Your task to perform on an android device: Show me productivity apps on the Play Store Image 0: 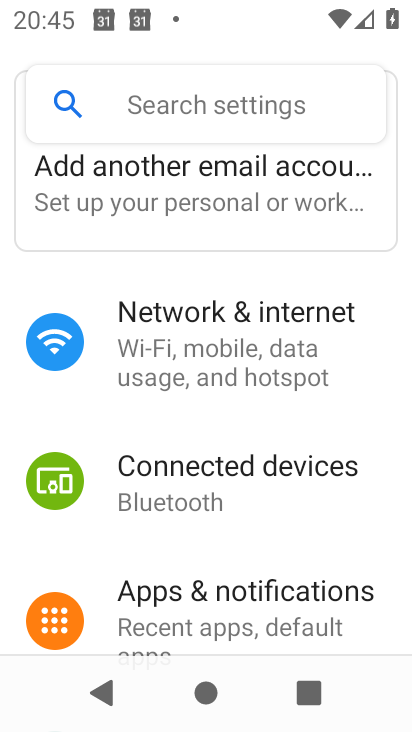
Step 0: press home button
Your task to perform on an android device: Show me productivity apps on the Play Store Image 1: 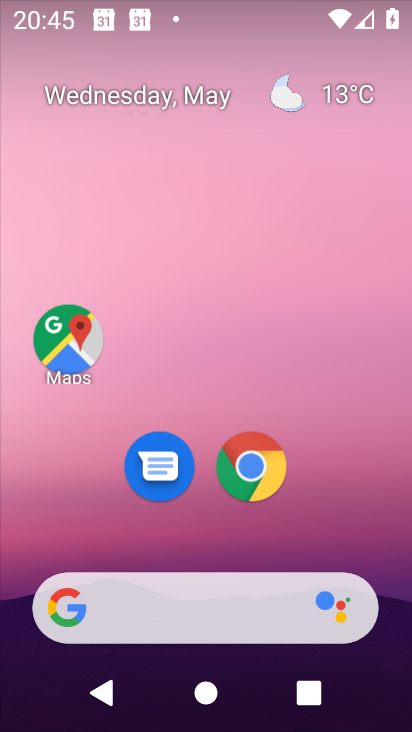
Step 1: drag from (210, 550) to (237, 92)
Your task to perform on an android device: Show me productivity apps on the Play Store Image 2: 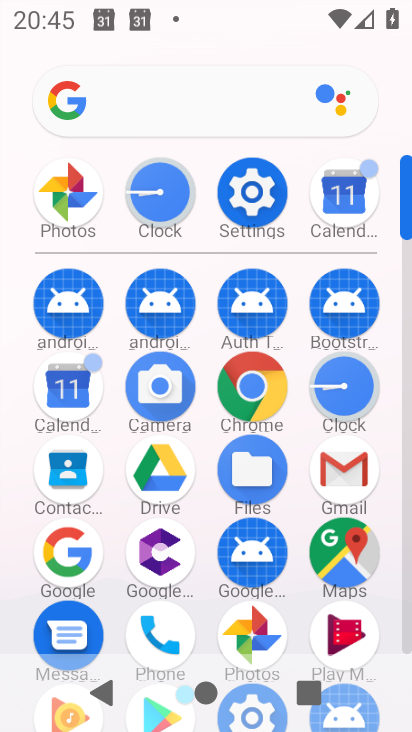
Step 2: drag from (204, 582) to (224, 166)
Your task to perform on an android device: Show me productivity apps on the Play Store Image 3: 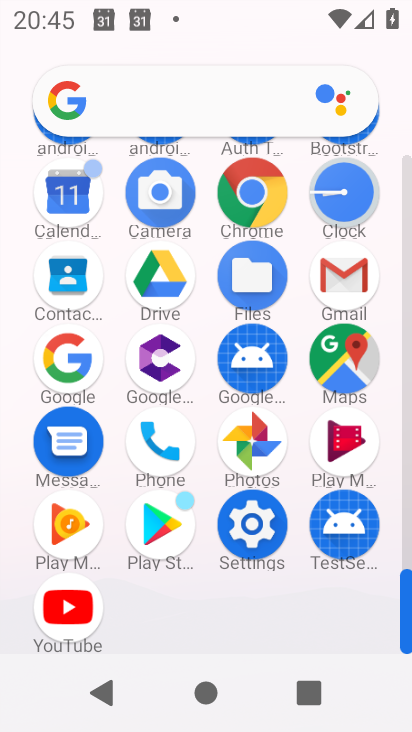
Step 3: click (156, 520)
Your task to perform on an android device: Show me productivity apps on the Play Store Image 4: 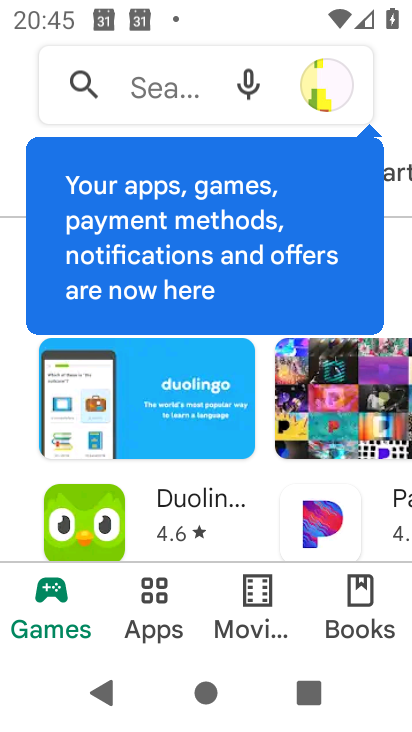
Step 4: click (156, 600)
Your task to perform on an android device: Show me productivity apps on the Play Store Image 5: 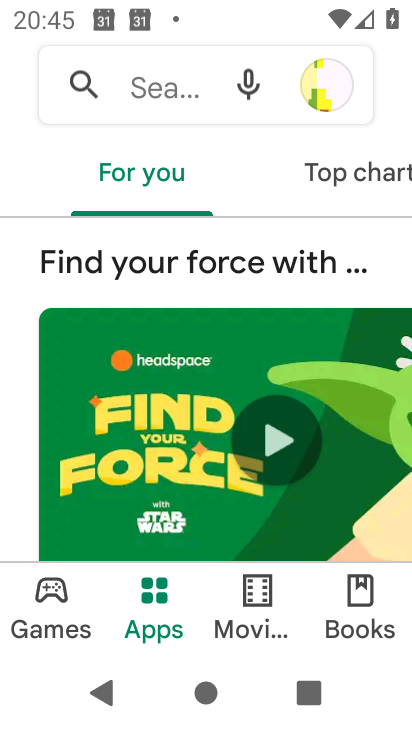
Step 5: drag from (382, 179) to (8, 189)
Your task to perform on an android device: Show me productivity apps on the Play Store Image 6: 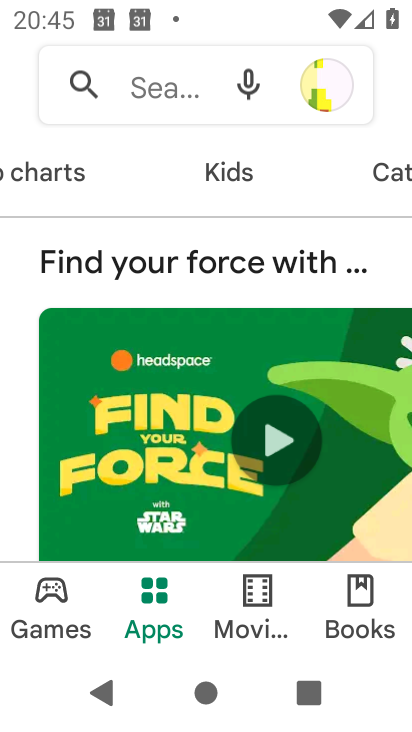
Step 6: click (388, 176)
Your task to perform on an android device: Show me productivity apps on the Play Store Image 7: 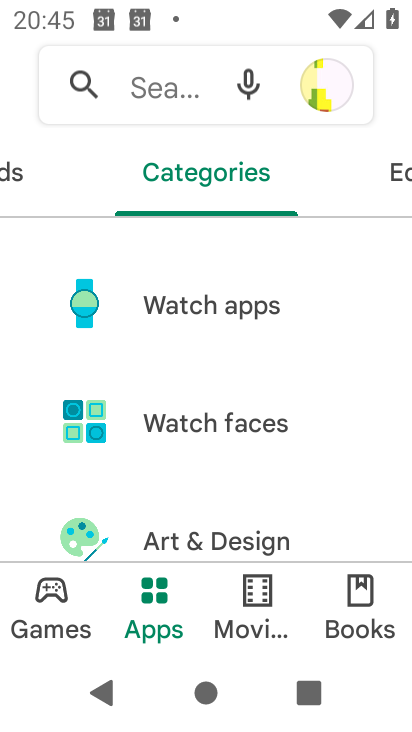
Step 7: drag from (249, 497) to (223, 117)
Your task to perform on an android device: Show me productivity apps on the Play Store Image 8: 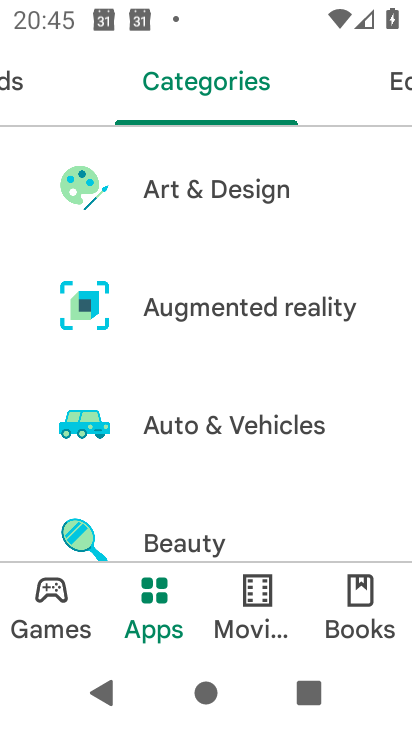
Step 8: drag from (202, 512) to (208, 29)
Your task to perform on an android device: Show me productivity apps on the Play Store Image 9: 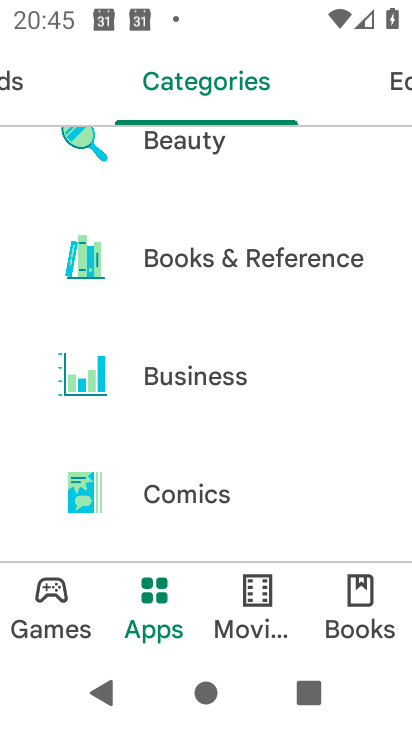
Step 9: drag from (180, 522) to (178, 75)
Your task to perform on an android device: Show me productivity apps on the Play Store Image 10: 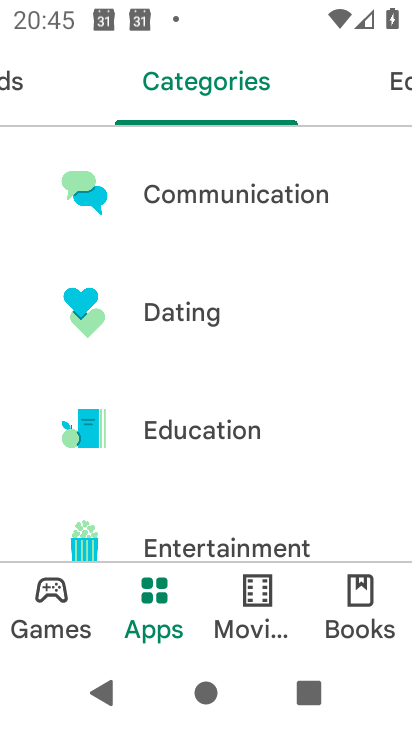
Step 10: drag from (196, 511) to (194, 118)
Your task to perform on an android device: Show me productivity apps on the Play Store Image 11: 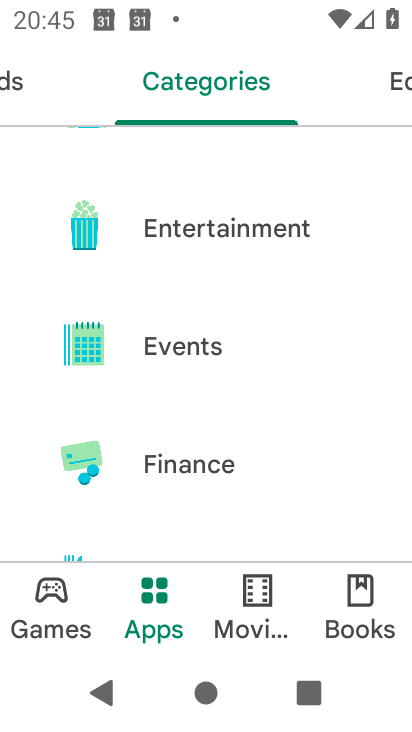
Step 11: drag from (164, 515) to (158, 120)
Your task to perform on an android device: Show me productivity apps on the Play Store Image 12: 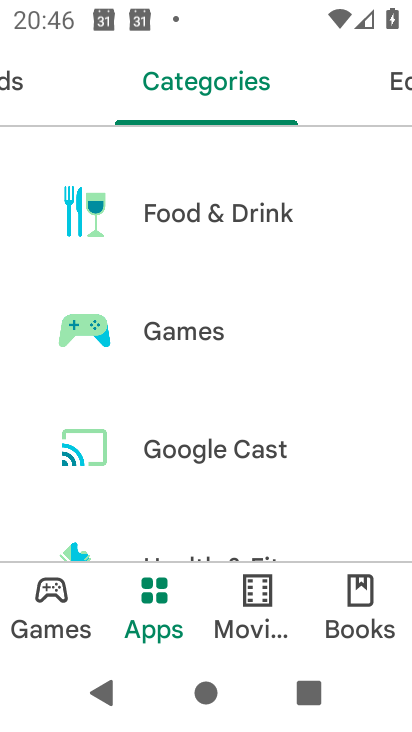
Step 12: drag from (168, 493) to (175, 29)
Your task to perform on an android device: Show me productivity apps on the Play Store Image 13: 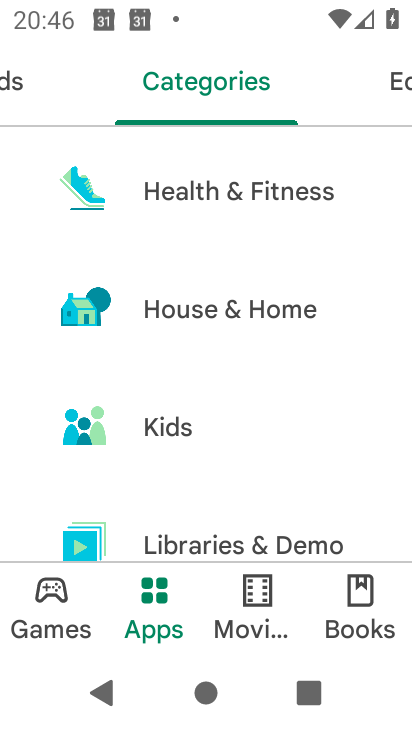
Step 13: drag from (171, 520) to (181, 85)
Your task to perform on an android device: Show me productivity apps on the Play Store Image 14: 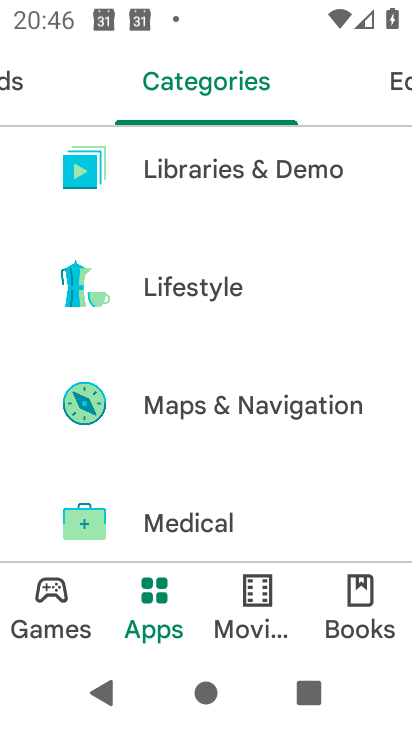
Step 14: drag from (150, 497) to (150, 229)
Your task to perform on an android device: Show me productivity apps on the Play Store Image 15: 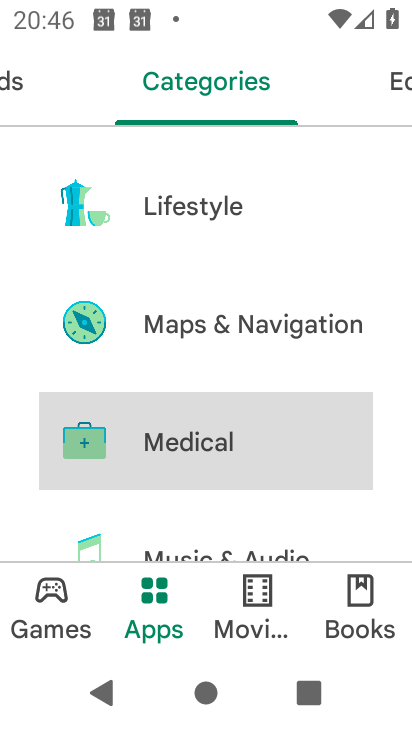
Step 15: click (150, 125)
Your task to perform on an android device: Show me productivity apps on the Play Store Image 16: 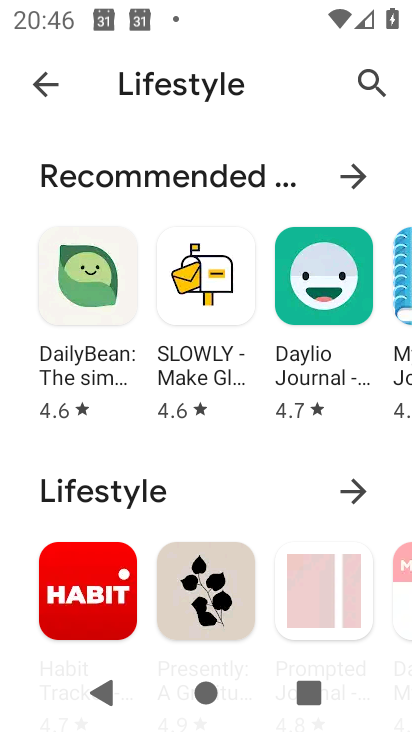
Step 16: click (54, 90)
Your task to perform on an android device: Show me productivity apps on the Play Store Image 17: 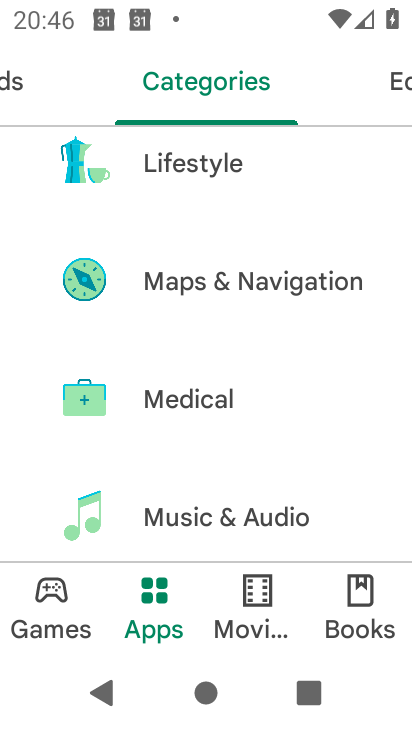
Step 17: click (198, 124)
Your task to perform on an android device: Show me productivity apps on the Play Store Image 18: 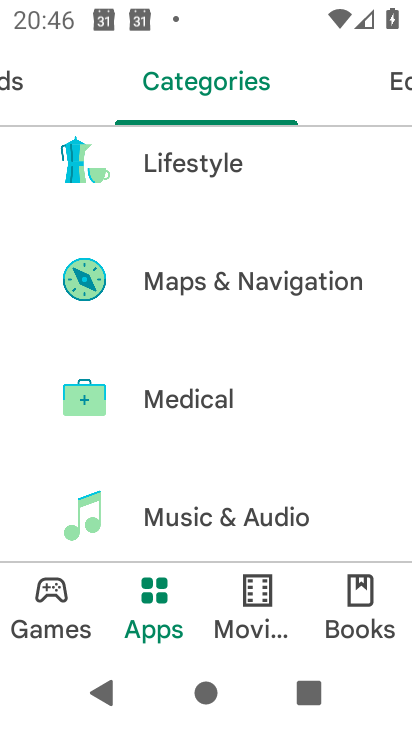
Step 18: drag from (219, 517) to (208, 130)
Your task to perform on an android device: Show me productivity apps on the Play Store Image 19: 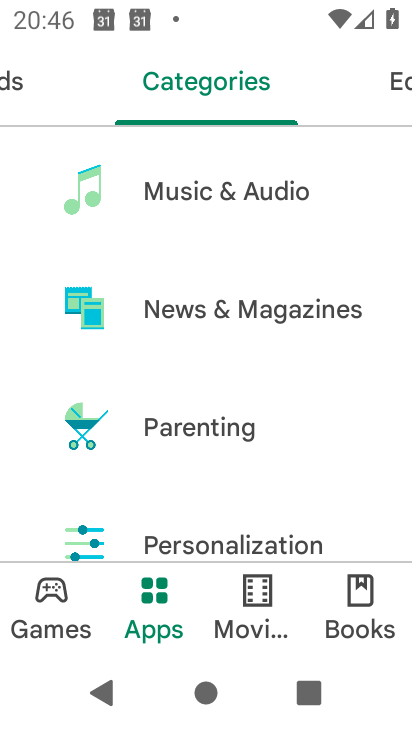
Step 19: drag from (172, 484) to (162, 112)
Your task to perform on an android device: Show me productivity apps on the Play Store Image 20: 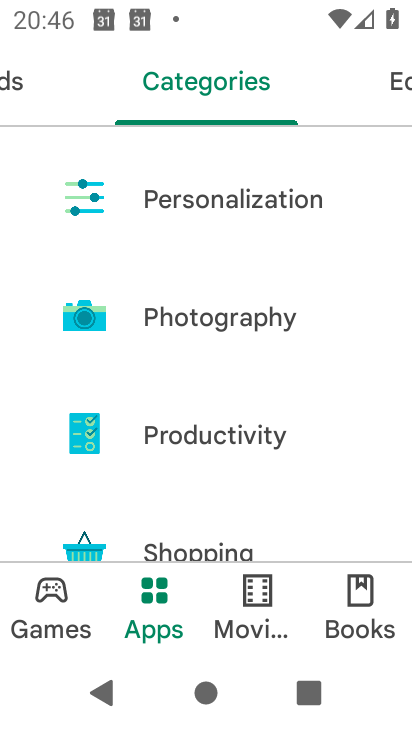
Step 20: click (108, 428)
Your task to perform on an android device: Show me productivity apps on the Play Store Image 21: 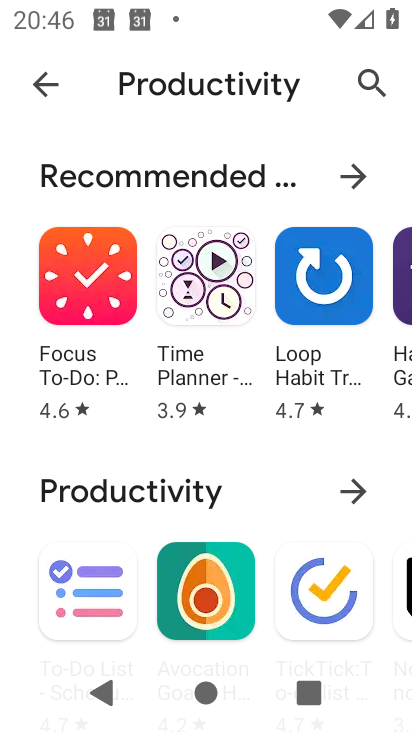
Step 21: task complete